Your task to perform on an android device: Go to Google Image 0: 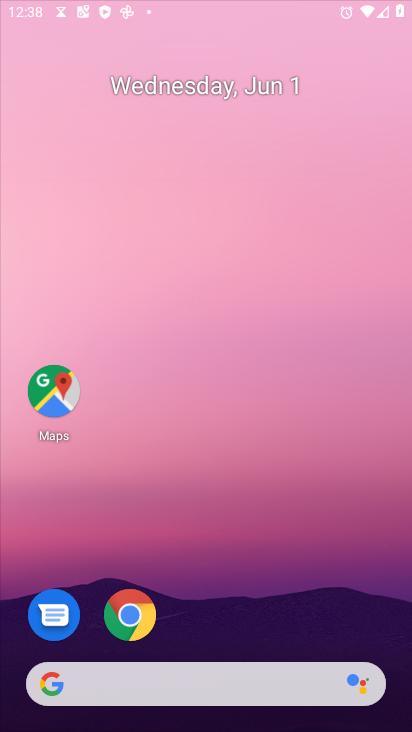
Step 0: click (348, 99)
Your task to perform on an android device: Go to Google Image 1: 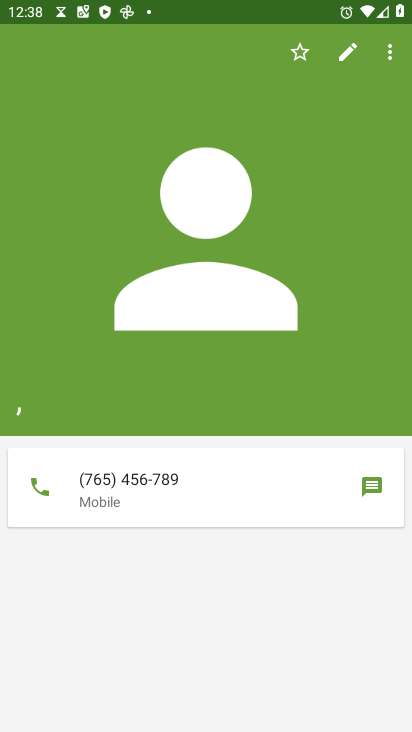
Step 1: press home button
Your task to perform on an android device: Go to Google Image 2: 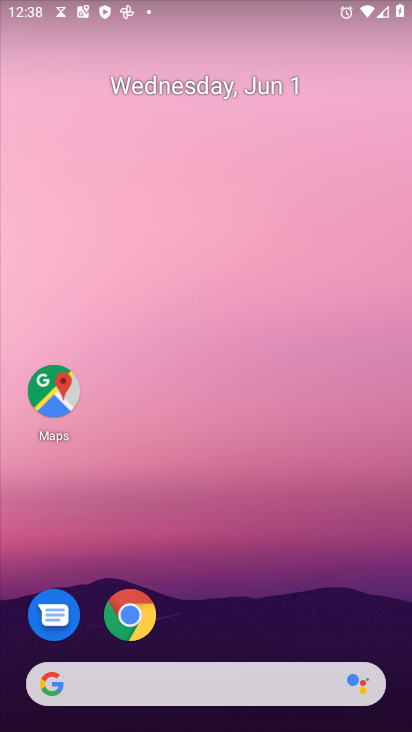
Step 2: drag from (296, 569) to (312, 76)
Your task to perform on an android device: Go to Google Image 3: 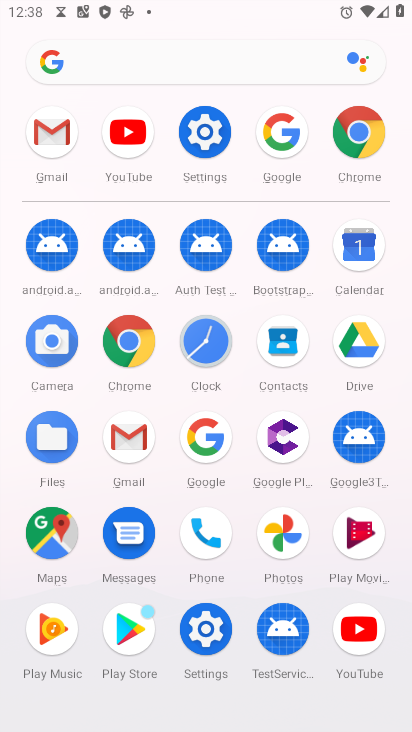
Step 3: click (212, 428)
Your task to perform on an android device: Go to Google Image 4: 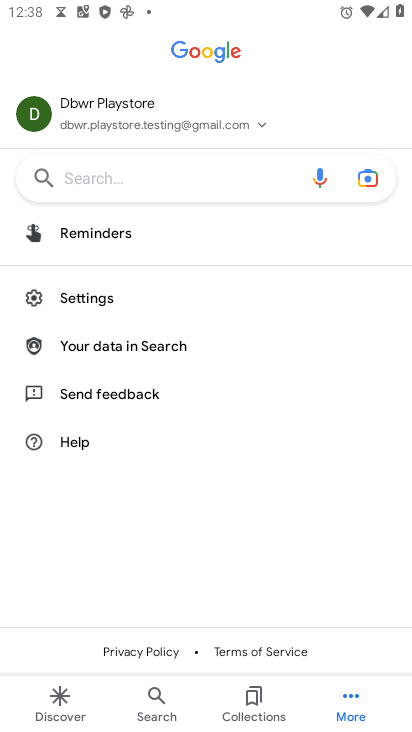
Step 4: task complete